Your task to perform on an android device: Open Yahoo.com Image 0: 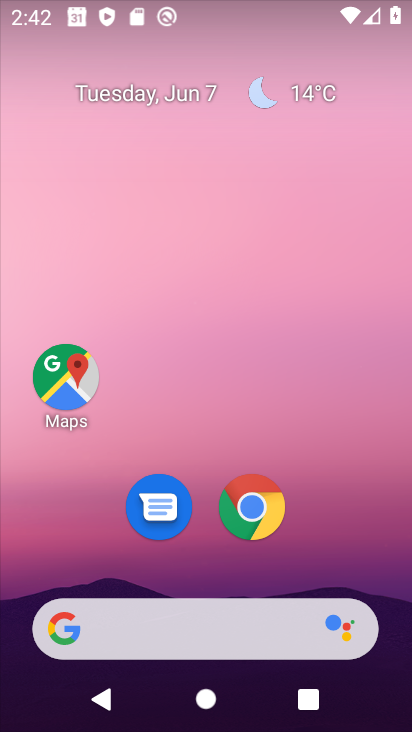
Step 0: click (257, 508)
Your task to perform on an android device: Open Yahoo.com Image 1: 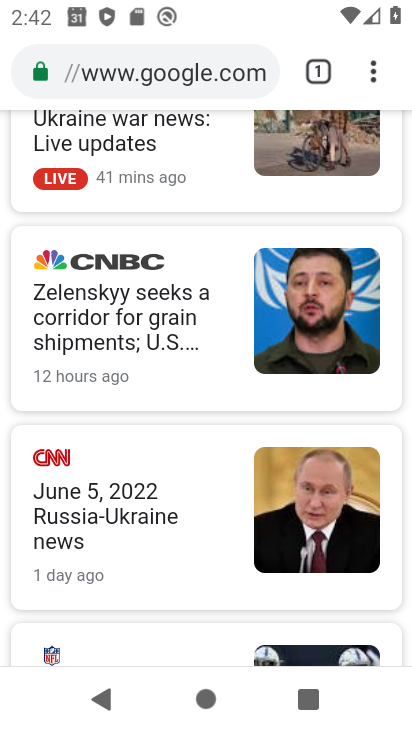
Step 1: click (184, 77)
Your task to perform on an android device: Open Yahoo.com Image 2: 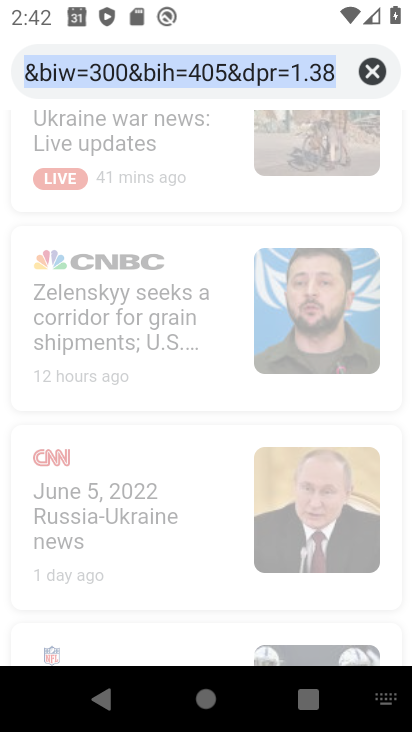
Step 2: type "yahoo.coom"
Your task to perform on an android device: Open Yahoo.com Image 3: 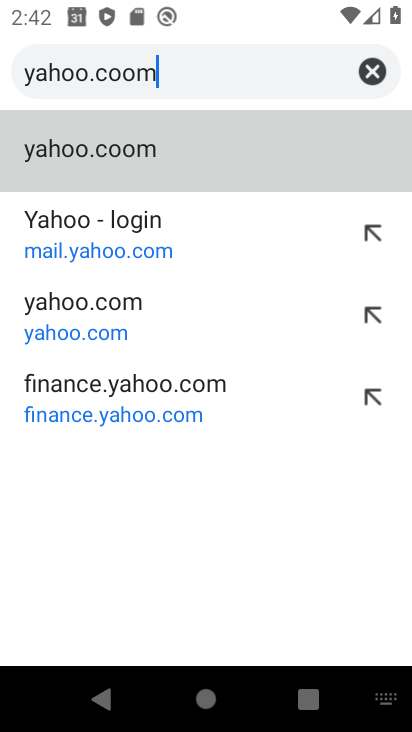
Step 3: click (141, 244)
Your task to perform on an android device: Open Yahoo.com Image 4: 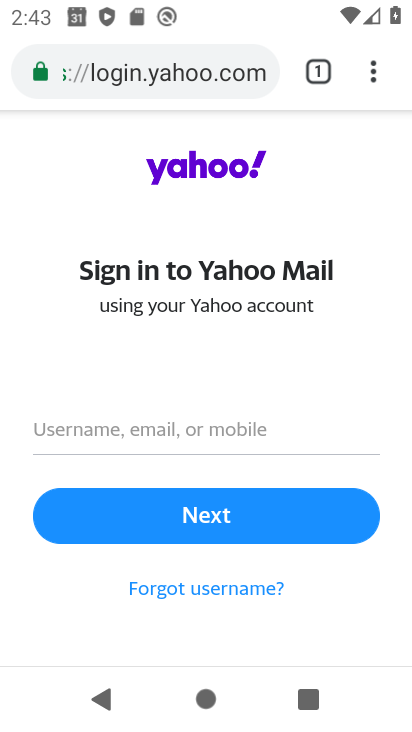
Step 4: task complete